Your task to perform on an android device: Open ESPN.com Image 0: 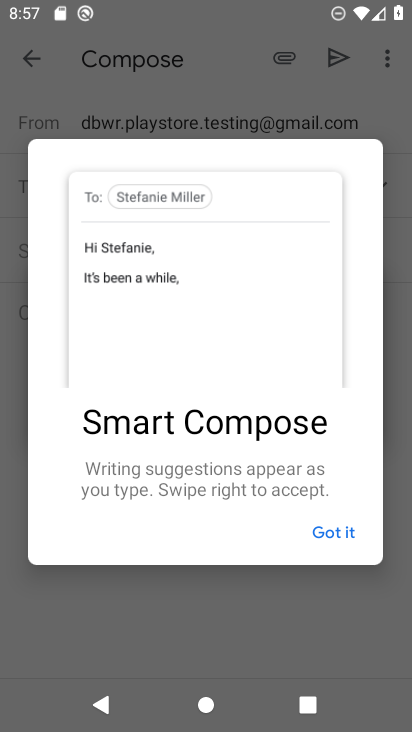
Step 0: press home button
Your task to perform on an android device: Open ESPN.com Image 1: 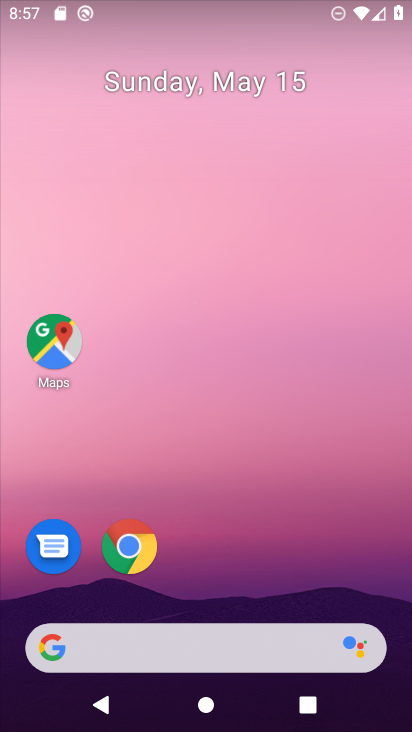
Step 1: click (188, 637)
Your task to perform on an android device: Open ESPN.com Image 2: 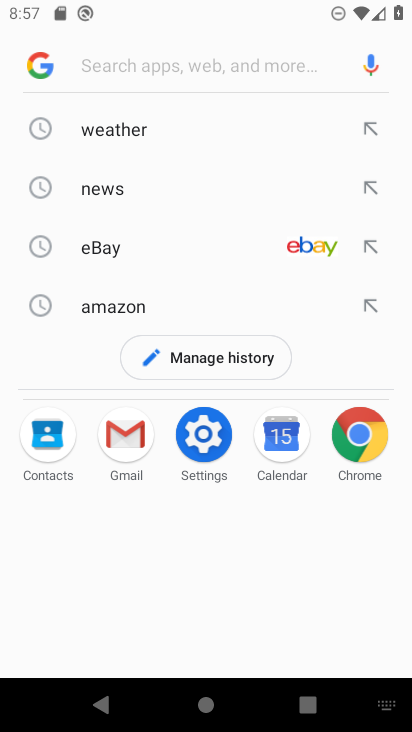
Step 2: type "espn.com"
Your task to perform on an android device: Open ESPN.com Image 3: 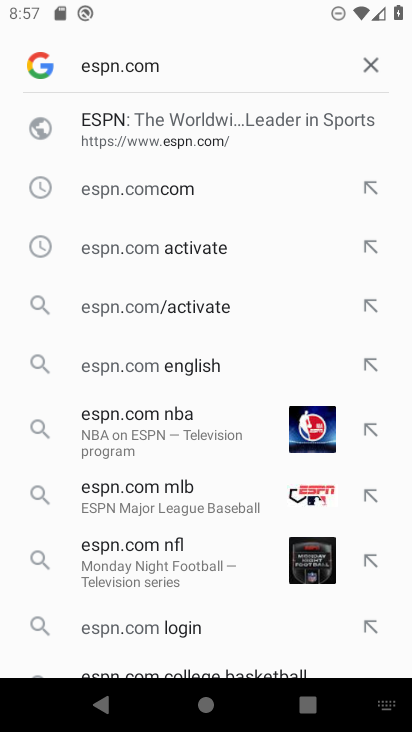
Step 3: click (64, 127)
Your task to perform on an android device: Open ESPN.com Image 4: 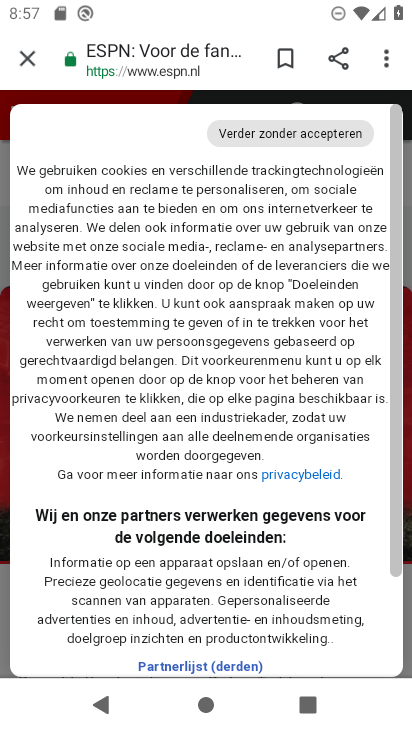
Step 4: task complete